Your task to perform on an android device: empty trash in google photos Image 0: 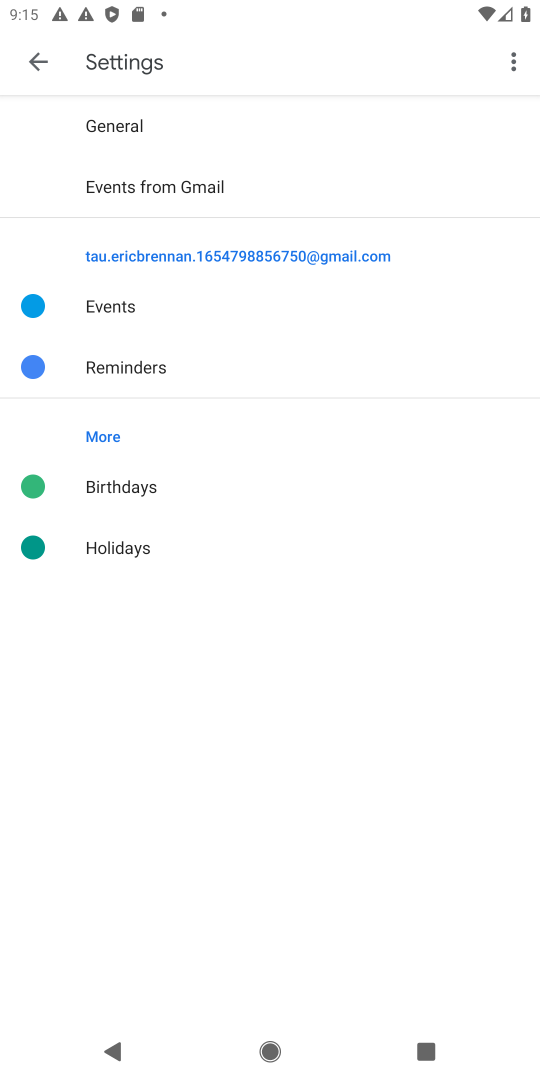
Step 0: press home button
Your task to perform on an android device: empty trash in google photos Image 1: 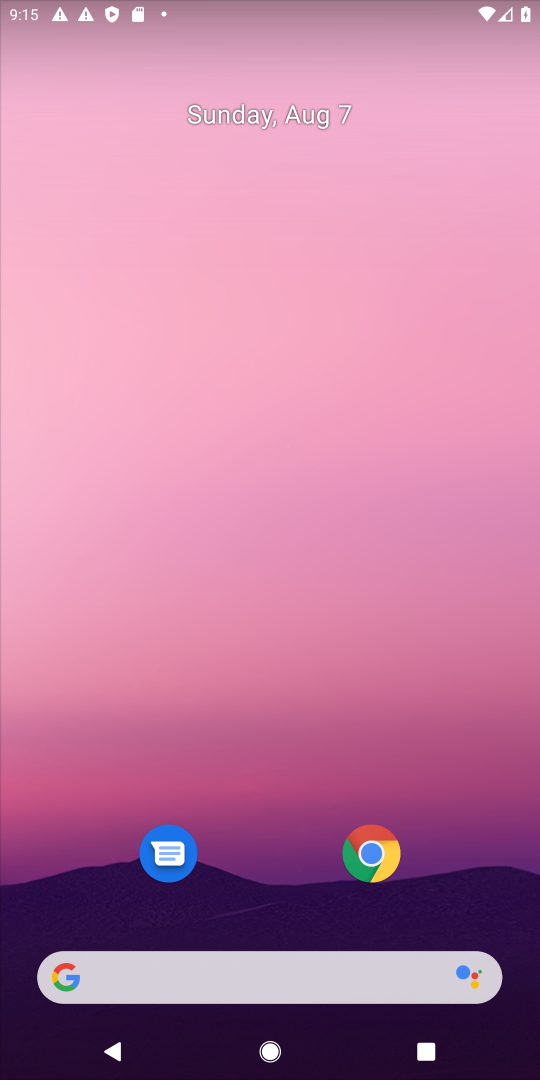
Step 1: drag from (436, 898) to (449, 343)
Your task to perform on an android device: empty trash in google photos Image 2: 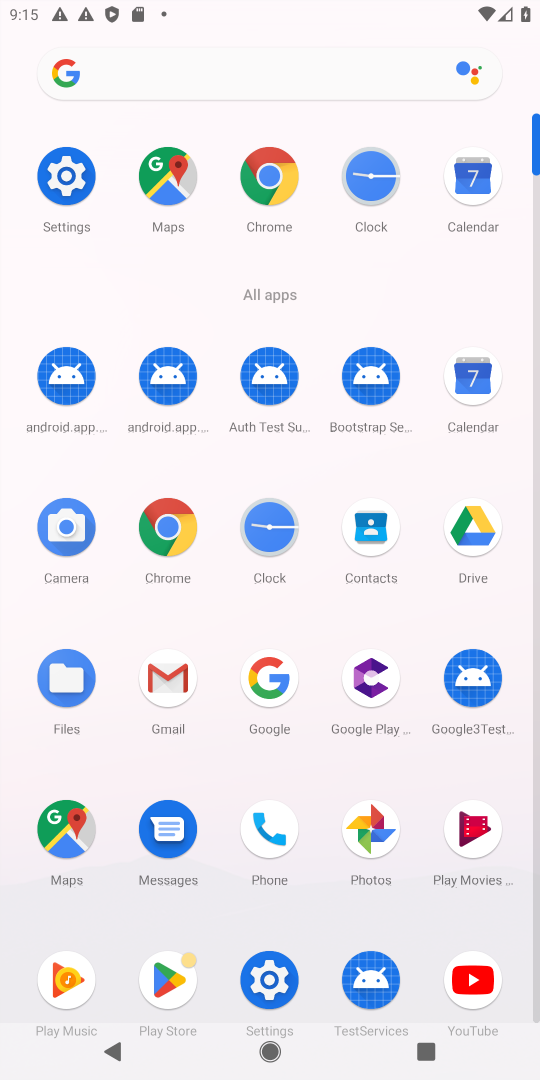
Step 2: click (379, 837)
Your task to perform on an android device: empty trash in google photos Image 3: 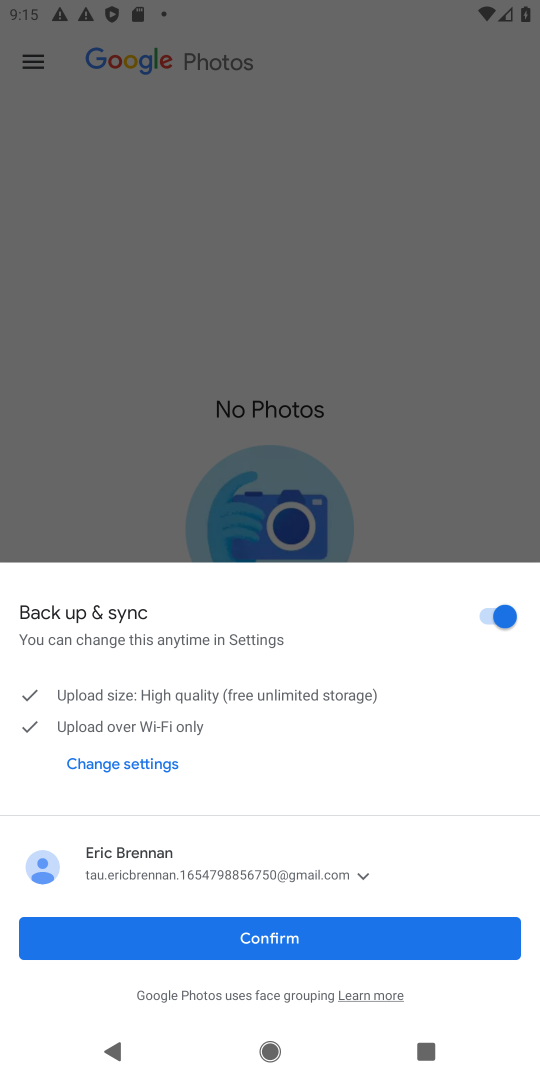
Step 3: click (307, 935)
Your task to perform on an android device: empty trash in google photos Image 4: 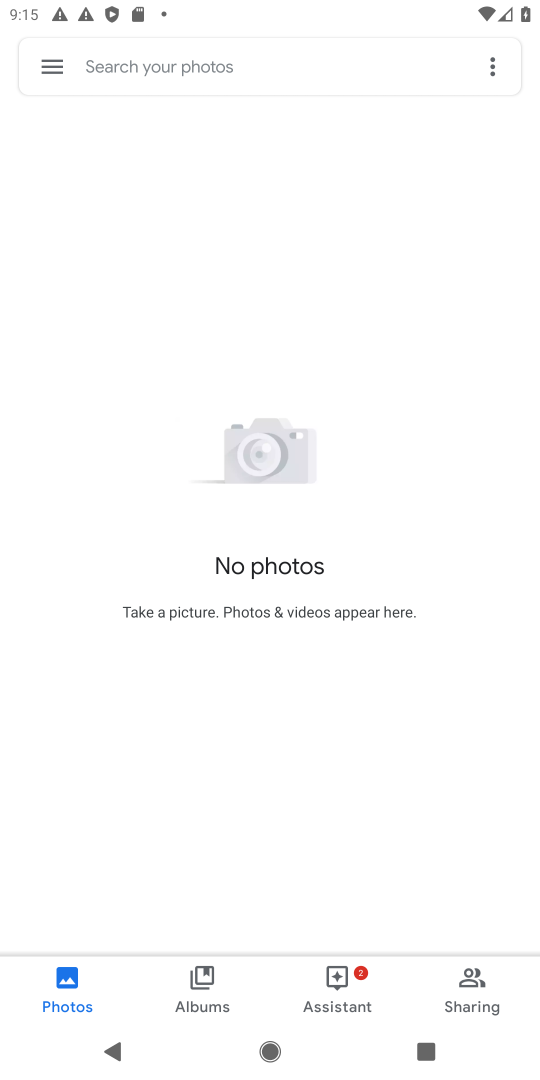
Step 4: click (52, 60)
Your task to perform on an android device: empty trash in google photos Image 5: 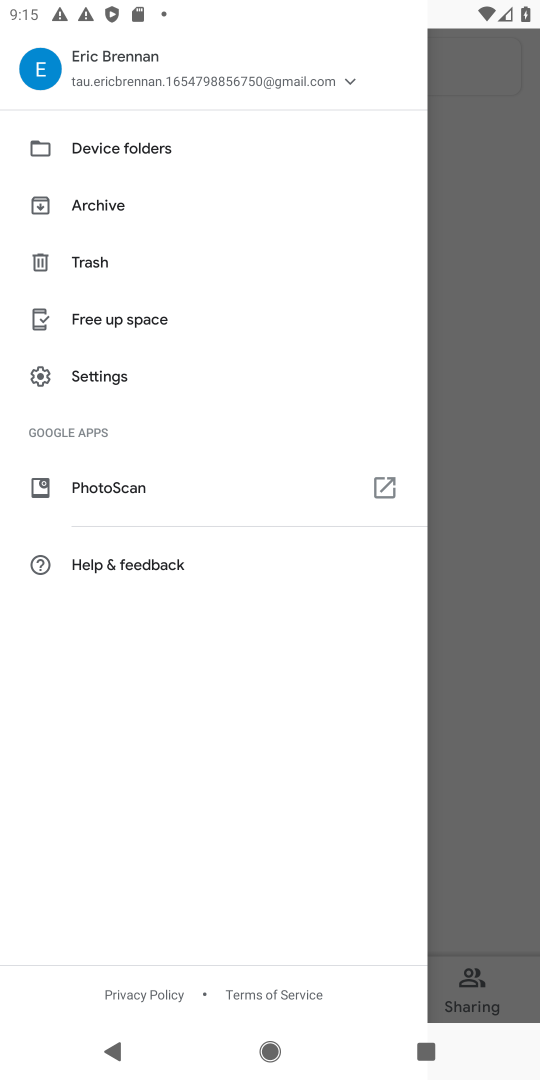
Step 5: click (107, 273)
Your task to perform on an android device: empty trash in google photos Image 6: 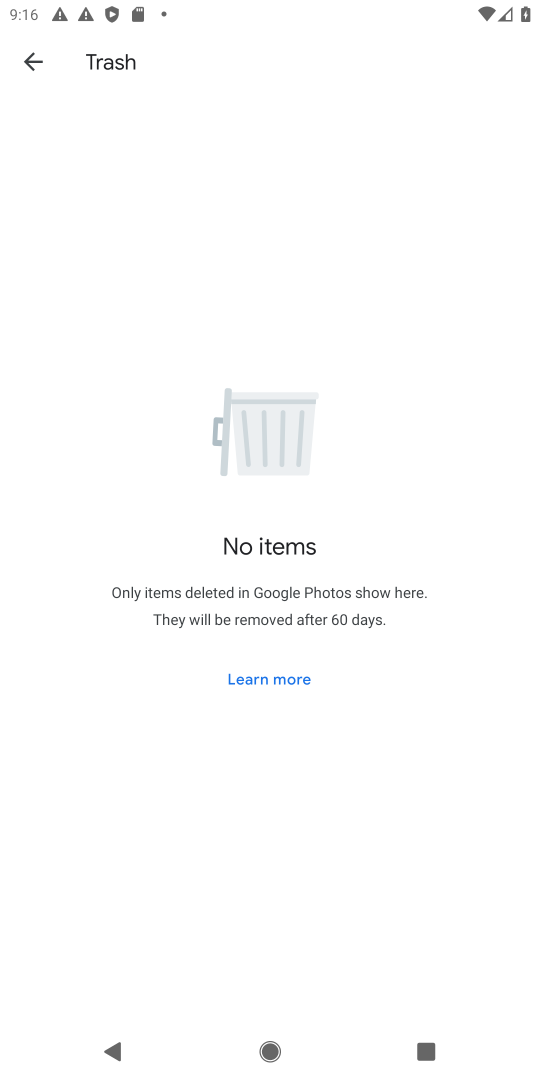
Step 6: task complete